Your task to perform on an android device: toggle notification dots Image 0: 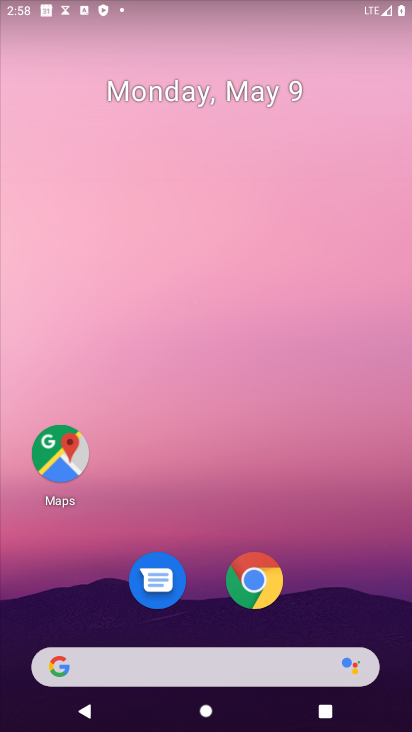
Step 0: drag from (332, 523) to (213, 72)
Your task to perform on an android device: toggle notification dots Image 1: 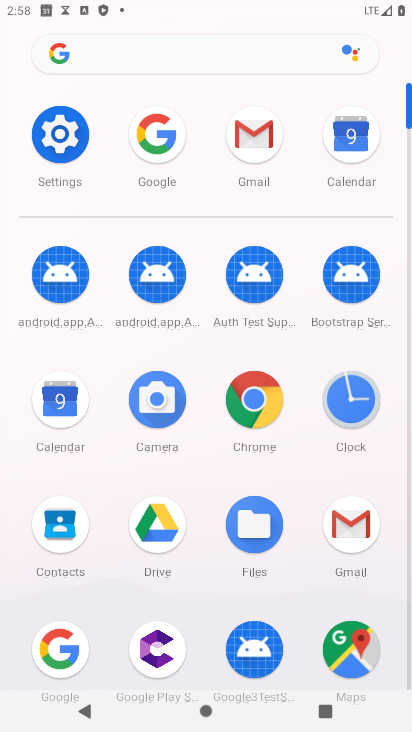
Step 1: click (61, 135)
Your task to perform on an android device: toggle notification dots Image 2: 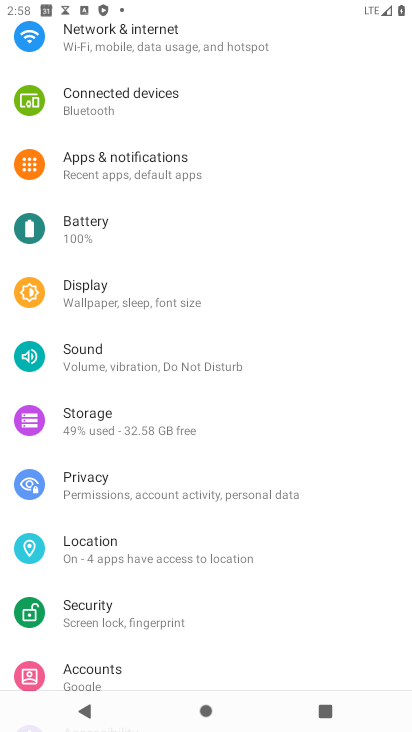
Step 2: click (206, 166)
Your task to perform on an android device: toggle notification dots Image 3: 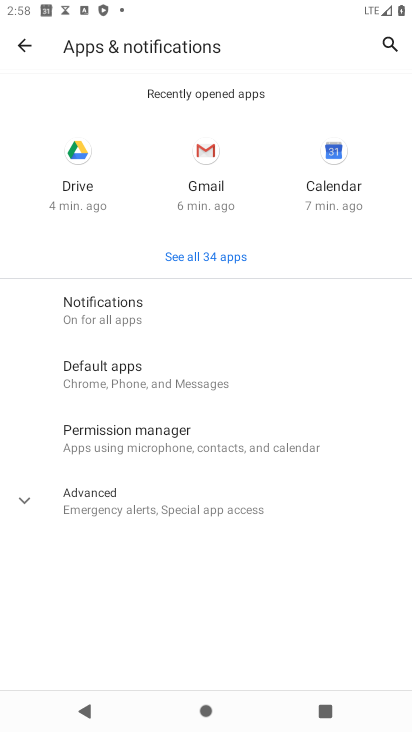
Step 3: click (174, 307)
Your task to perform on an android device: toggle notification dots Image 4: 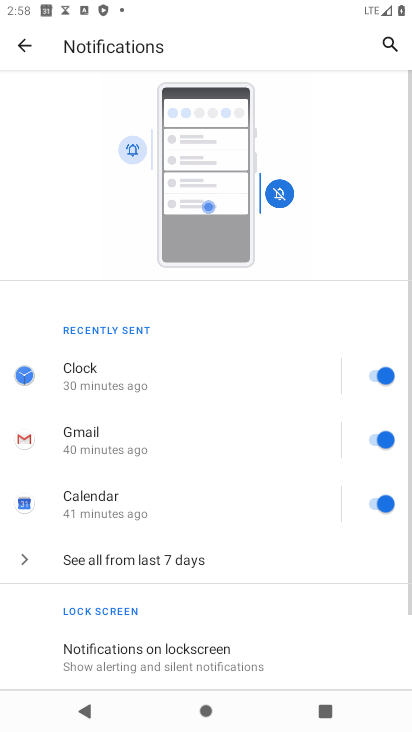
Step 4: drag from (223, 596) to (197, 167)
Your task to perform on an android device: toggle notification dots Image 5: 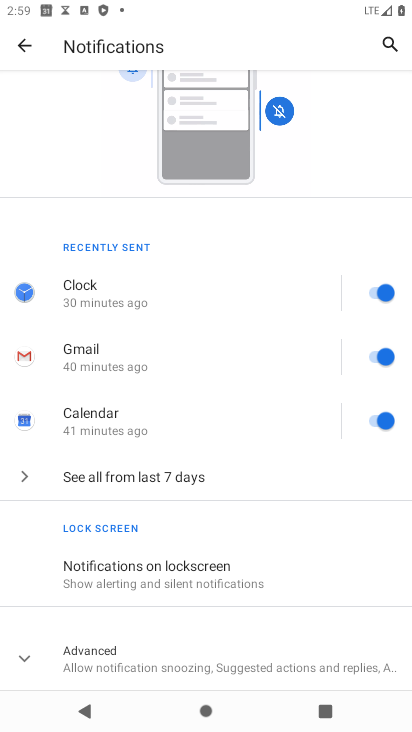
Step 5: click (148, 653)
Your task to perform on an android device: toggle notification dots Image 6: 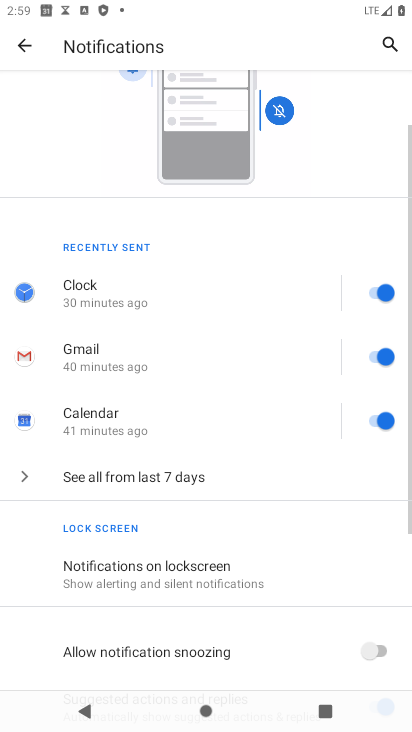
Step 6: drag from (177, 572) to (205, 296)
Your task to perform on an android device: toggle notification dots Image 7: 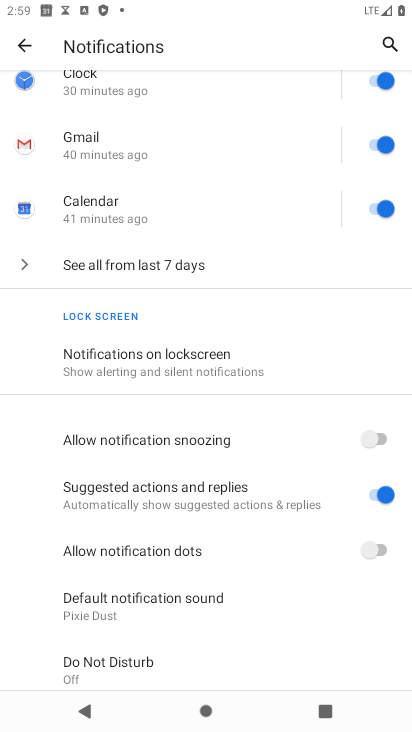
Step 7: drag from (200, 622) to (206, 382)
Your task to perform on an android device: toggle notification dots Image 8: 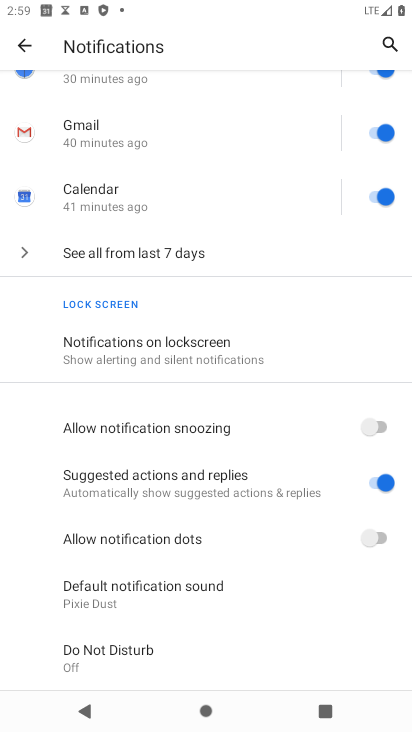
Step 8: click (379, 546)
Your task to perform on an android device: toggle notification dots Image 9: 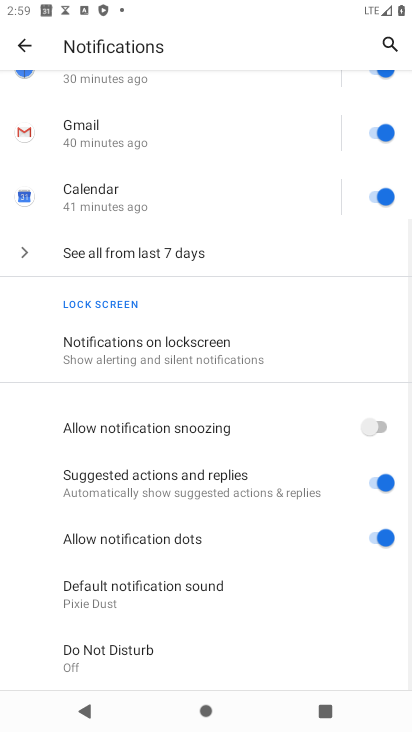
Step 9: task complete